Your task to perform on an android device: What's the weather? Image 0: 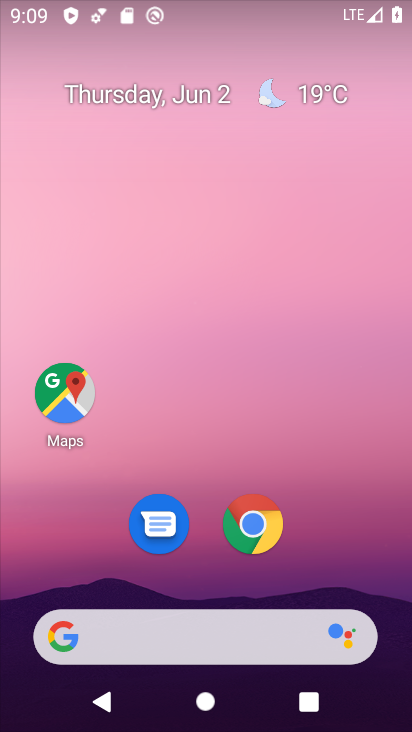
Step 0: click (293, 94)
Your task to perform on an android device: What's the weather? Image 1: 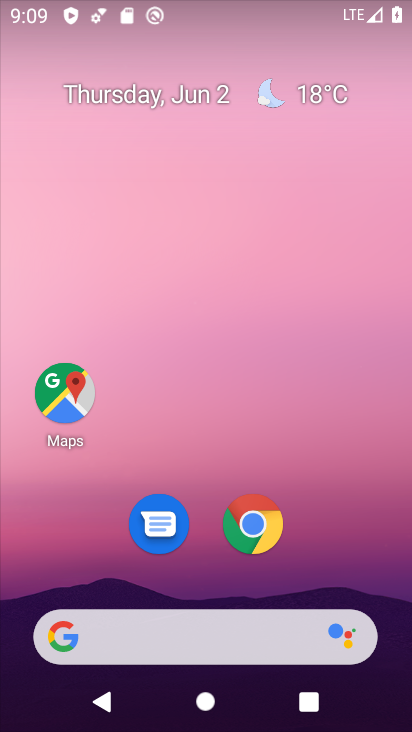
Step 1: click (293, 95)
Your task to perform on an android device: What's the weather? Image 2: 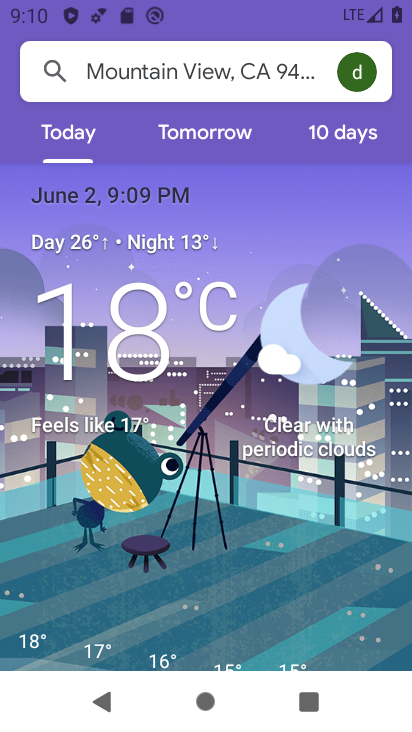
Step 2: task complete